Your task to perform on an android device: toggle improve location accuracy Image 0: 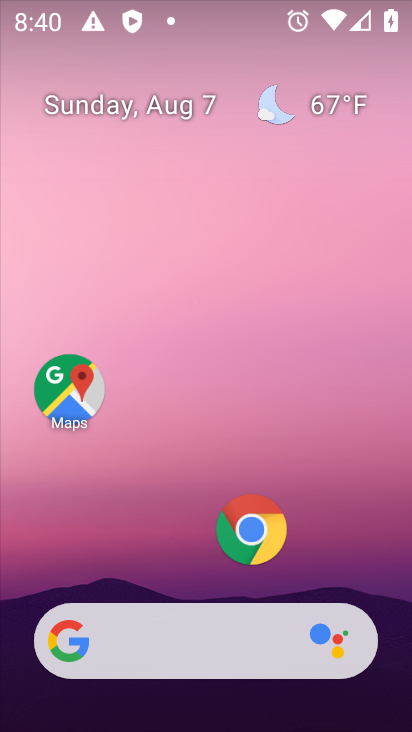
Step 0: drag from (187, 585) to (224, 117)
Your task to perform on an android device: toggle improve location accuracy Image 1: 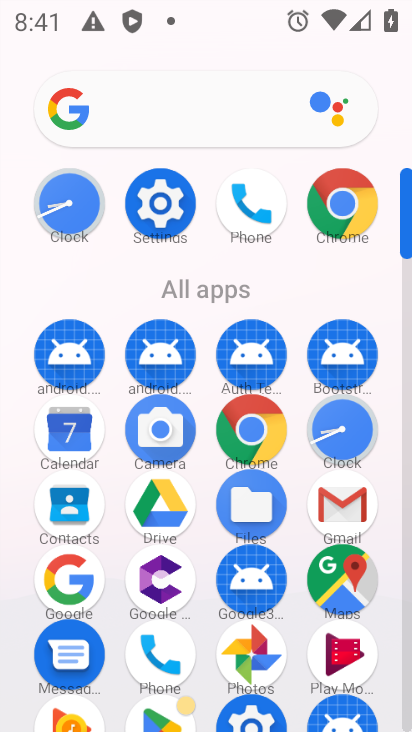
Step 1: click (136, 208)
Your task to perform on an android device: toggle improve location accuracy Image 2: 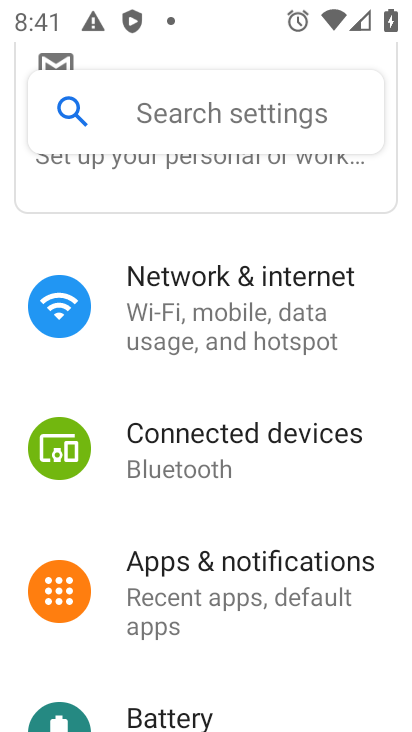
Step 2: drag from (251, 563) to (260, 430)
Your task to perform on an android device: toggle improve location accuracy Image 3: 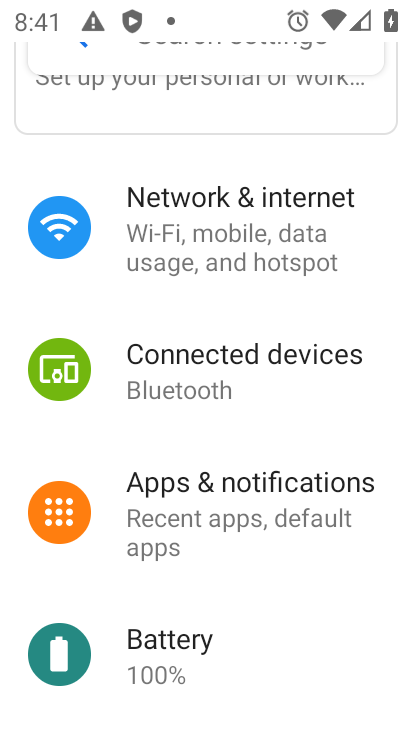
Step 3: drag from (262, 612) to (282, 329)
Your task to perform on an android device: toggle improve location accuracy Image 4: 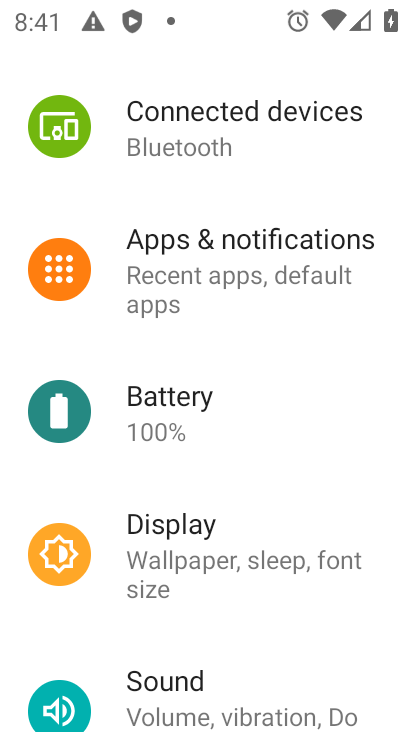
Step 4: drag from (231, 590) to (265, 308)
Your task to perform on an android device: toggle improve location accuracy Image 5: 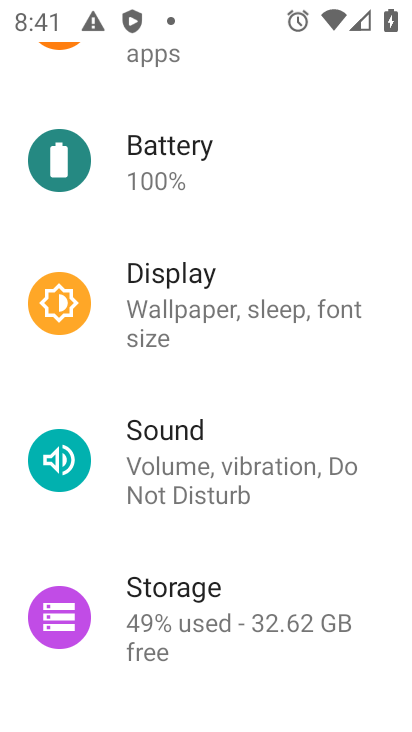
Step 5: drag from (265, 587) to (291, 284)
Your task to perform on an android device: toggle improve location accuracy Image 6: 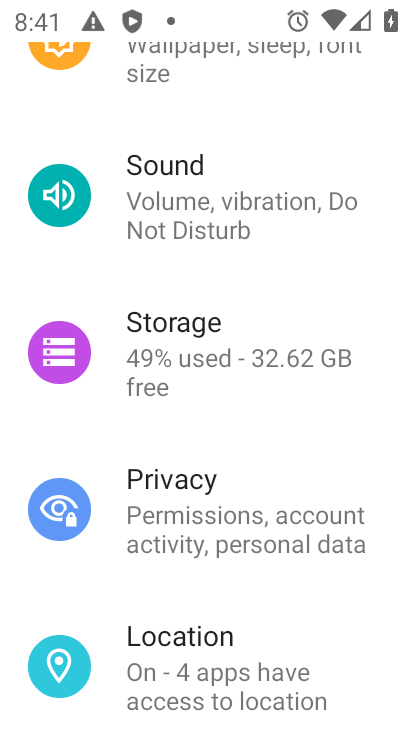
Step 6: click (215, 678)
Your task to perform on an android device: toggle improve location accuracy Image 7: 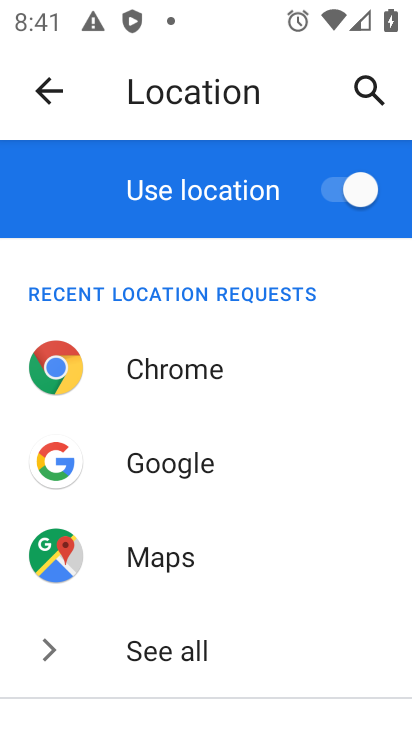
Step 7: drag from (186, 620) to (191, 288)
Your task to perform on an android device: toggle improve location accuracy Image 8: 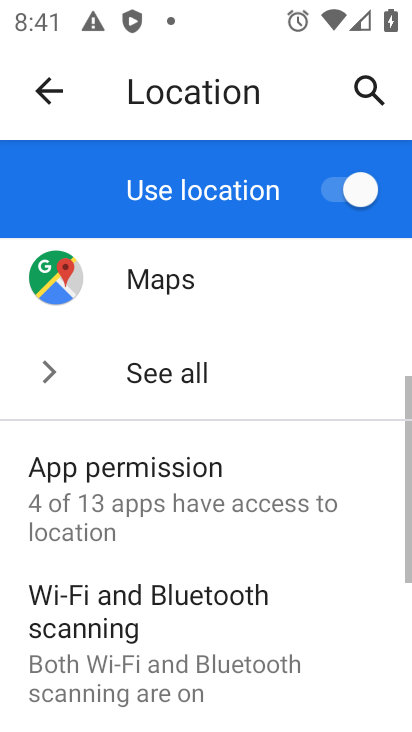
Step 8: drag from (138, 639) to (192, 256)
Your task to perform on an android device: toggle improve location accuracy Image 9: 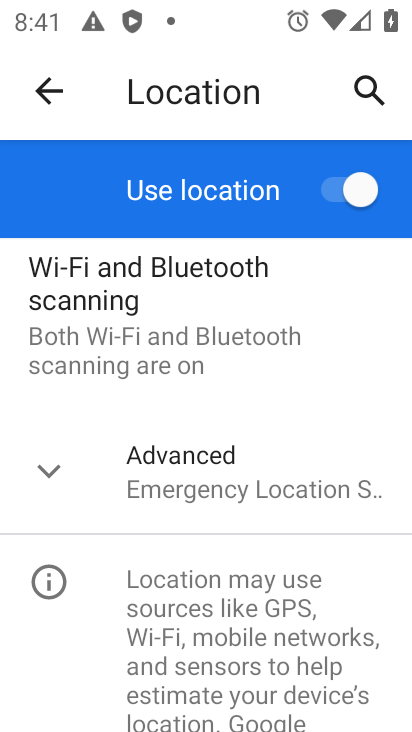
Step 9: click (144, 483)
Your task to perform on an android device: toggle improve location accuracy Image 10: 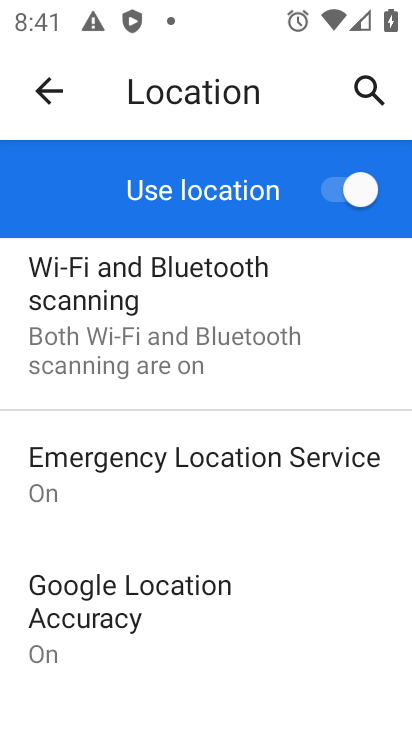
Step 10: click (136, 615)
Your task to perform on an android device: toggle improve location accuracy Image 11: 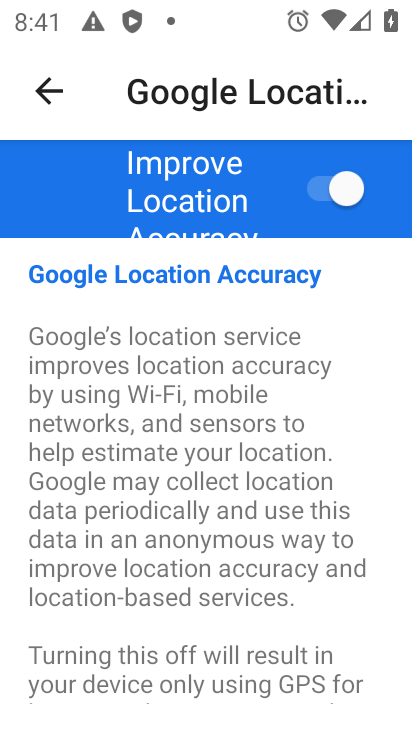
Step 11: click (305, 188)
Your task to perform on an android device: toggle improve location accuracy Image 12: 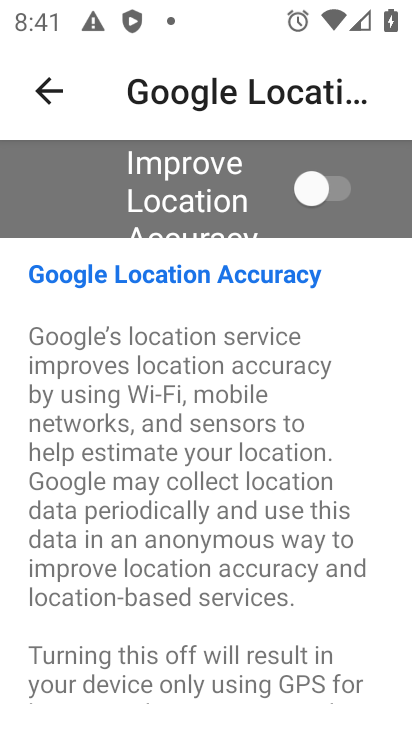
Step 12: task complete